Your task to perform on an android device: Open Google Chrome and open the bookmarks view Image 0: 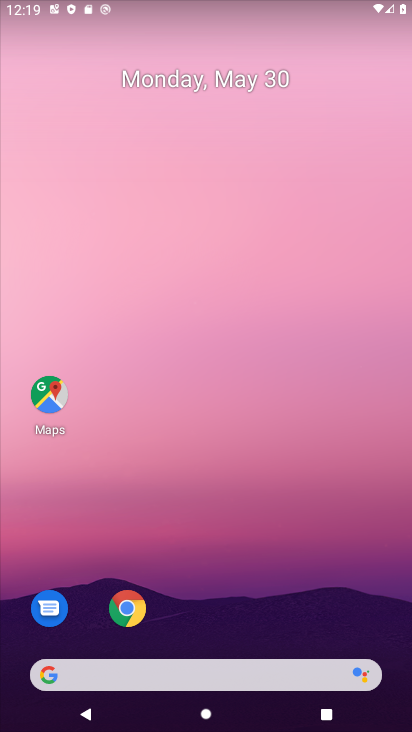
Step 0: click (130, 610)
Your task to perform on an android device: Open Google Chrome and open the bookmarks view Image 1: 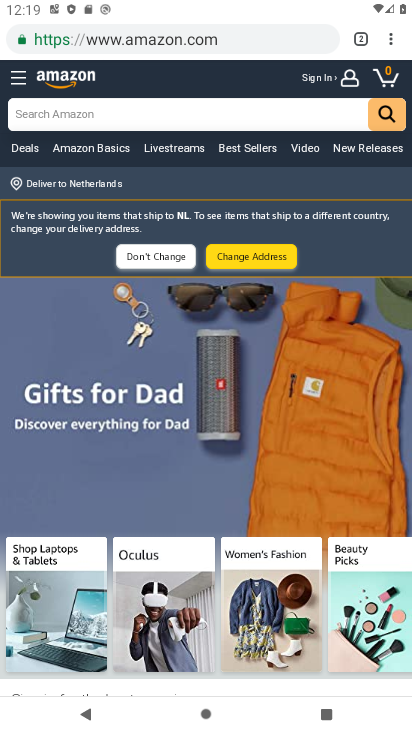
Step 1: click (394, 32)
Your task to perform on an android device: Open Google Chrome and open the bookmarks view Image 2: 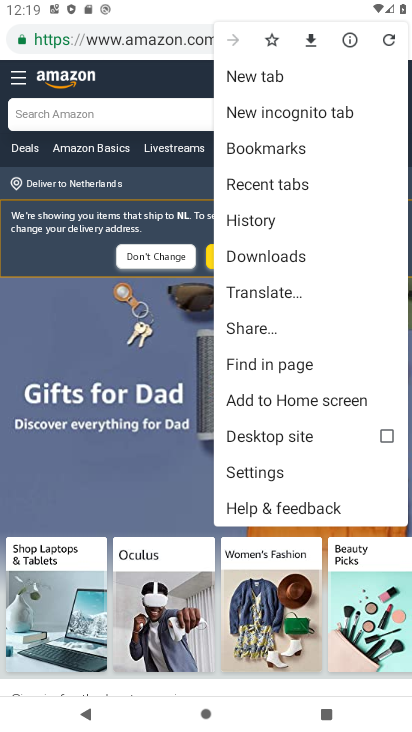
Step 2: click (296, 152)
Your task to perform on an android device: Open Google Chrome and open the bookmarks view Image 3: 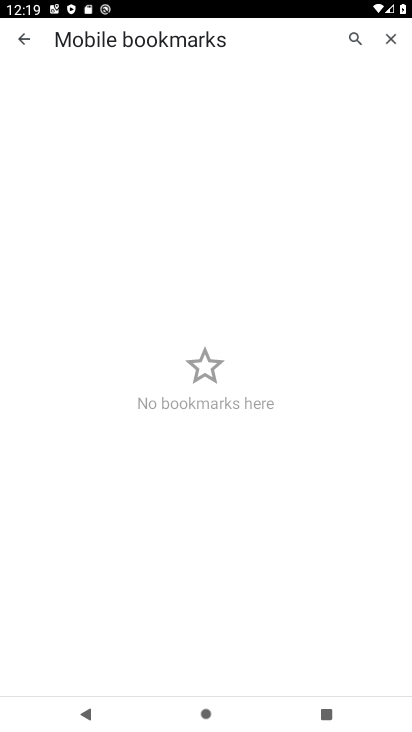
Step 3: task complete